Your task to perform on an android device: turn on showing notifications on the lock screen Image 0: 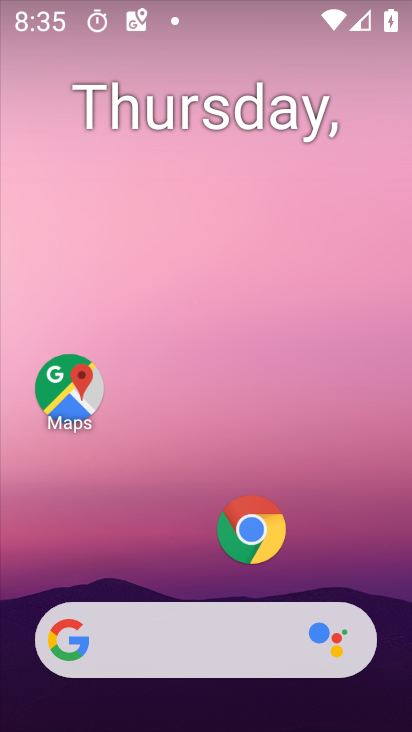
Step 0: drag from (199, 586) to (220, 73)
Your task to perform on an android device: turn on showing notifications on the lock screen Image 1: 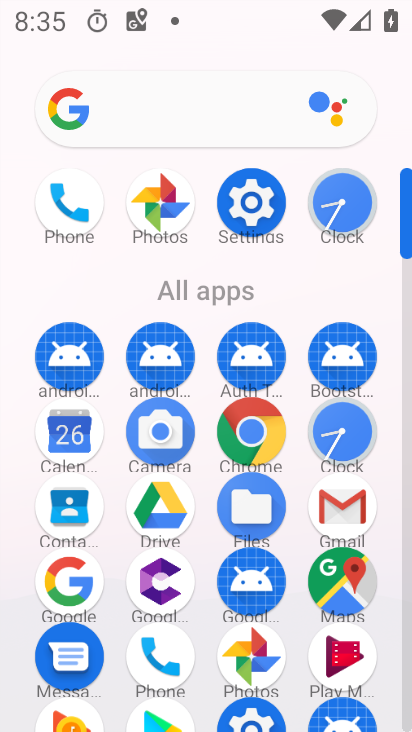
Step 1: click (251, 197)
Your task to perform on an android device: turn on showing notifications on the lock screen Image 2: 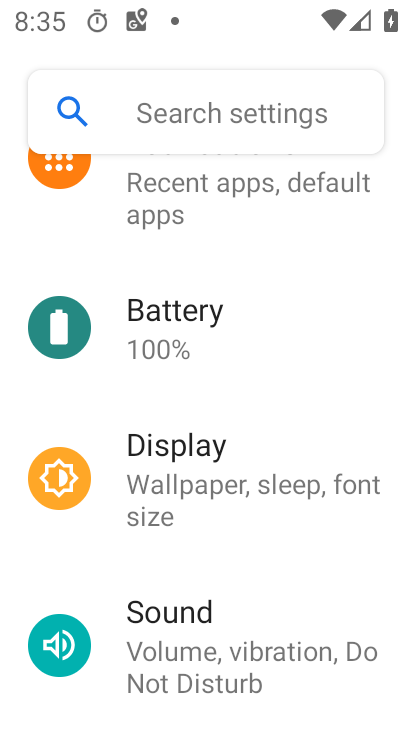
Step 2: drag from (220, 218) to (263, 564)
Your task to perform on an android device: turn on showing notifications on the lock screen Image 3: 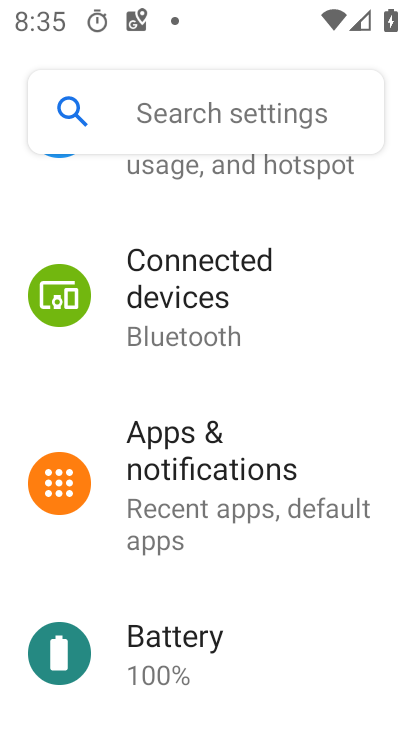
Step 3: click (238, 471)
Your task to perform on an android device: turn on showing notifications on the lock screen Image 4: 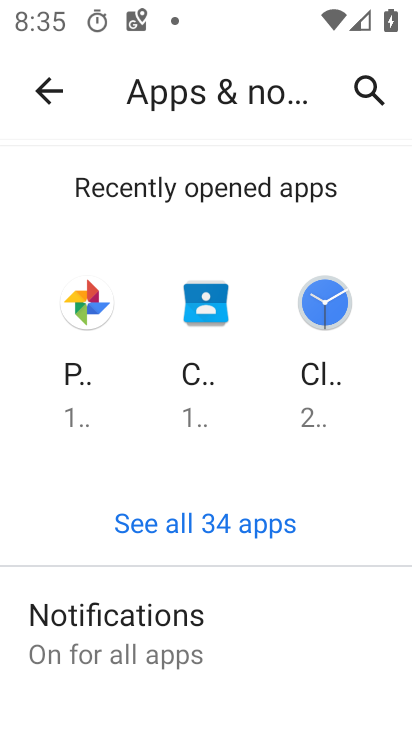
Step 4: click (219, 634)
Your task to perform on an android device: turn on showing notifications on the lock screen Image 5: 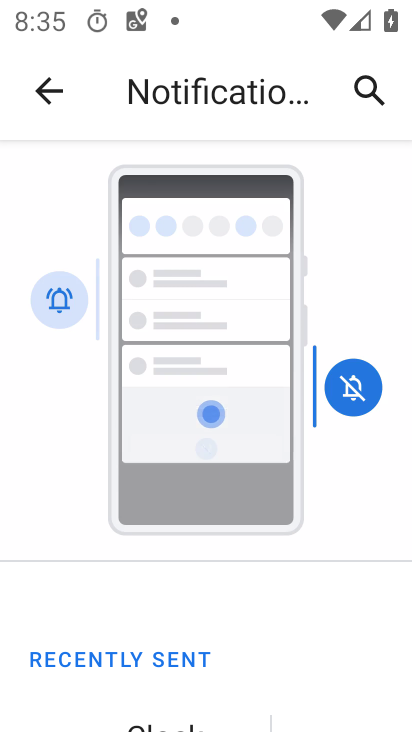
Step 5: drag from (258, 693) to (318, 193)
Your task to perform on an android device: turn on showing notifications on the lock screen Image 6: 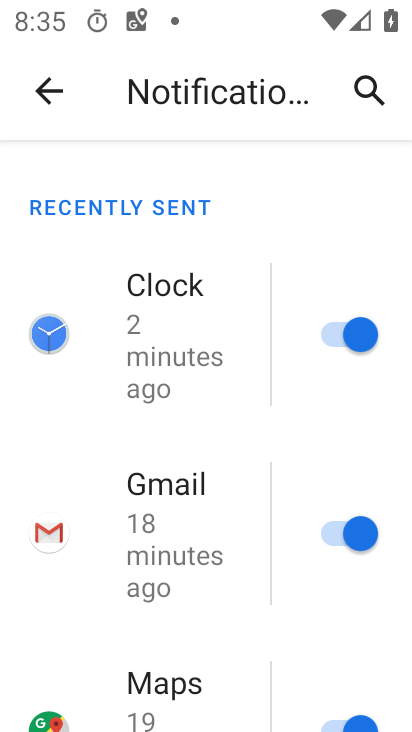
Step 6: drag from (229, 679) to (253, 134)
Your task to perform on an android device: turn on showing notifications on the lock screen Image 7: 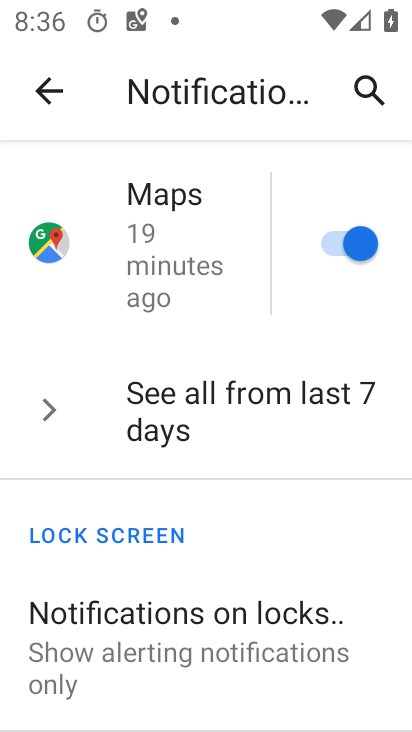
Step 7: click (194, 635)
Your task to perform on an android device: turn on showing notifications on the lock screen Image 8: 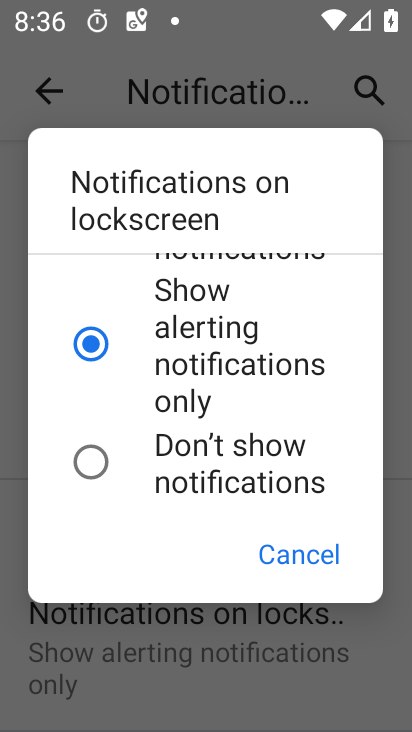
Step 8: drag from (166, 324) to (169, 502)
Your task to perform on an android device: turn on showing notifications on the lock screen Image 9: 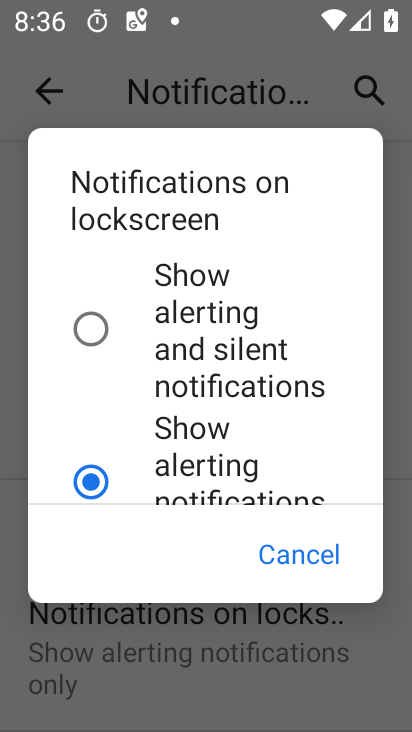
Step 9: click (96, 325)
Your task to perform on an android device: turn on showing notifications on the lock screen Image 10: 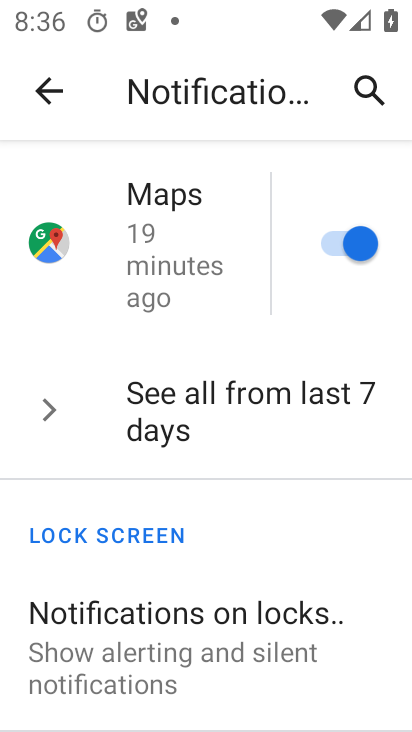
Step 10: drag from (220, 674) to (272, 197)
Your task to perform on an android device: turn on showing notifications on the lock screen Image 11: 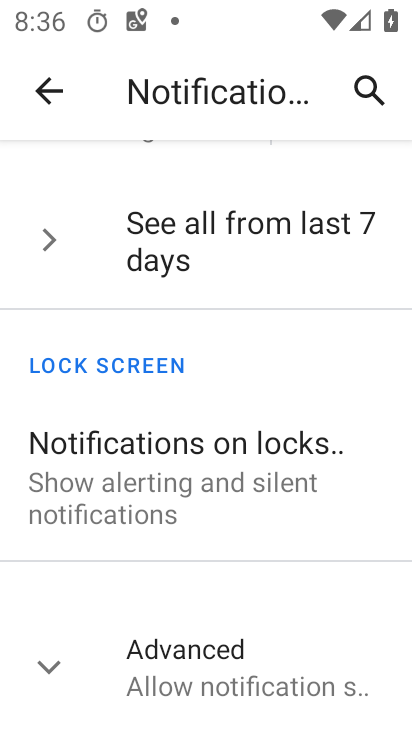
Step 11: click (48, 663)
Your task to perform on an android device: turn on showing notifications on the lock screen Image 12: 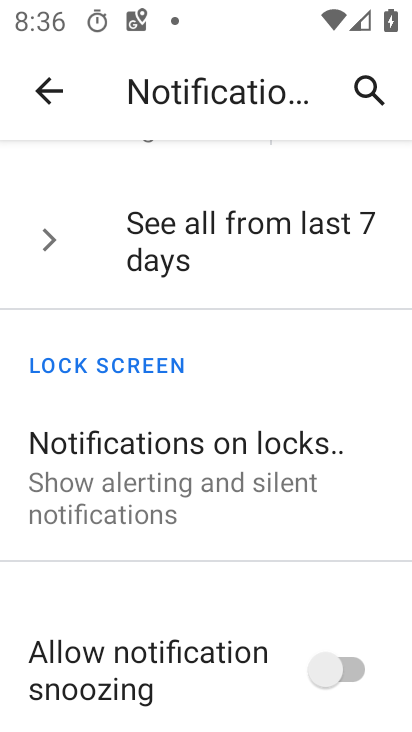
Step 12: task complete